Your task to perform on an android device: turn on sleep mode Image 0: 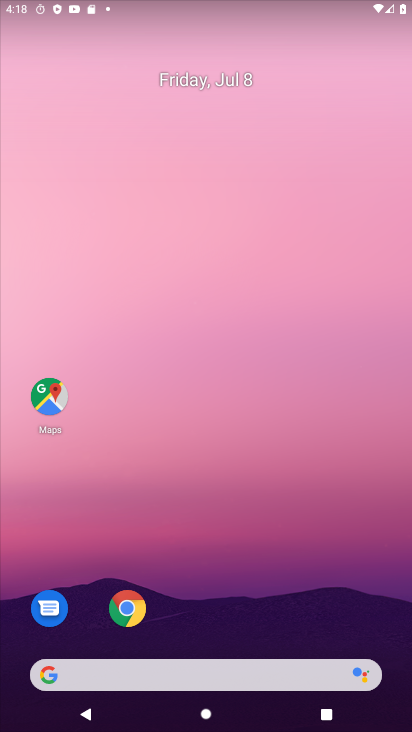
Step 0: press home button
Your task to perform on an android device: turn on sleep mode Image 1: 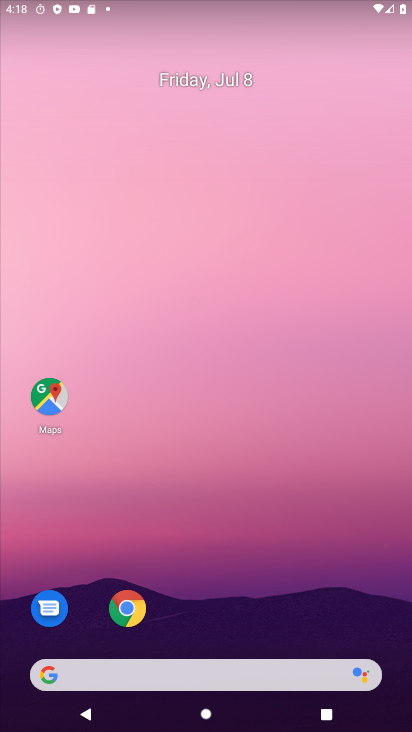
Step 1: drag from (280, 618) to (265, 25)
Your task to perform on an android device: turn on sleep mode Image 2: 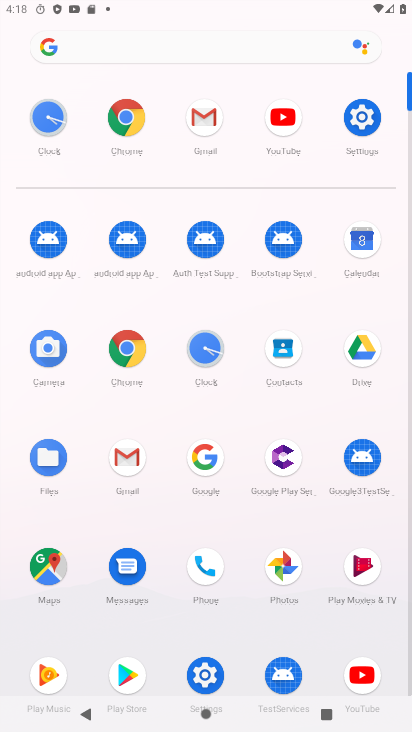
Step 2: click (359, 117)
Your task to perform on an android device: turn on sleep mode Image 3: 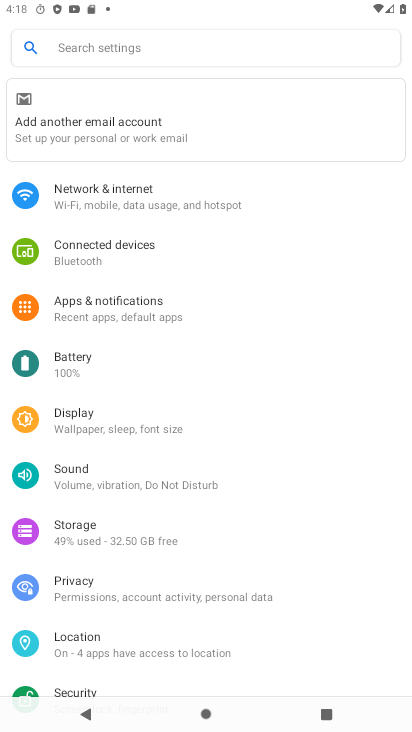
Step 3: drag from (73, 471) to (387, 509)
Your task to perform on an android device: turn on sleep mode Image 4: 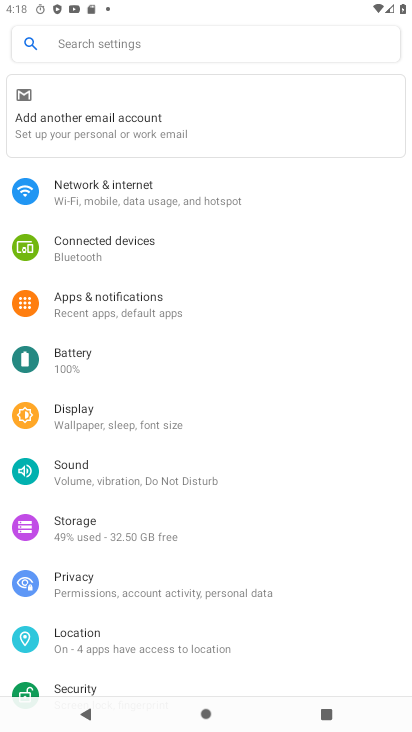
Step 4: click (75, 424)
Your task to perform on an android device: turn on sleep mode Image 5: 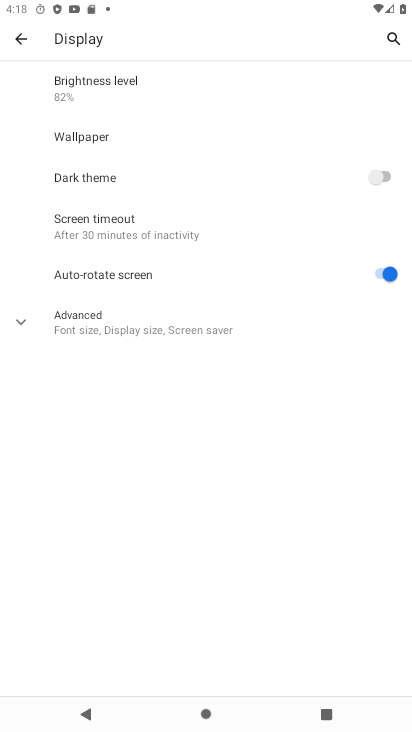
Step 5: click (27, 320)
Your task to perform on an android device: turn on sleep mode Image 6: 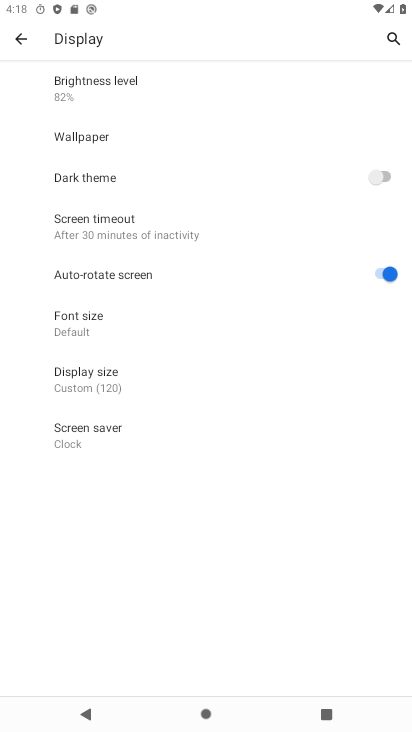
Step 6: task complete